Your task to perform on an android device: check battery use Image 0: 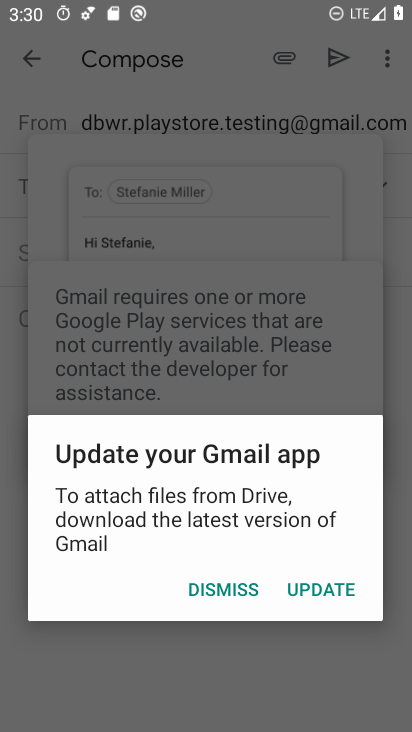
Step 0: press home button
Your task to perform on an android device: check battery use Image 1: 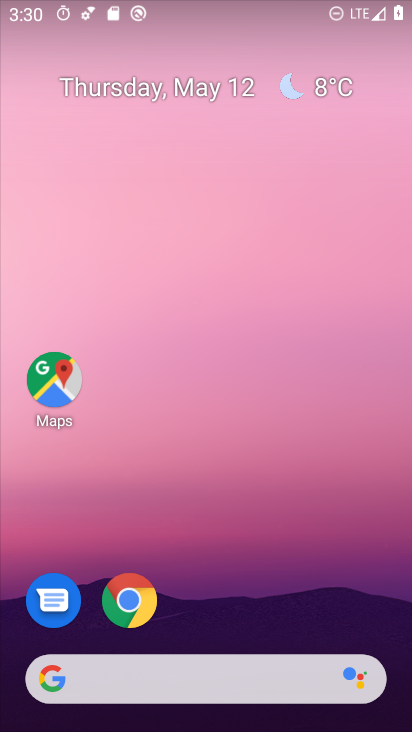
Step 1: drag from (211, 725) to (213, 234)
Your task to perform on an android device: check battery use Image 2: 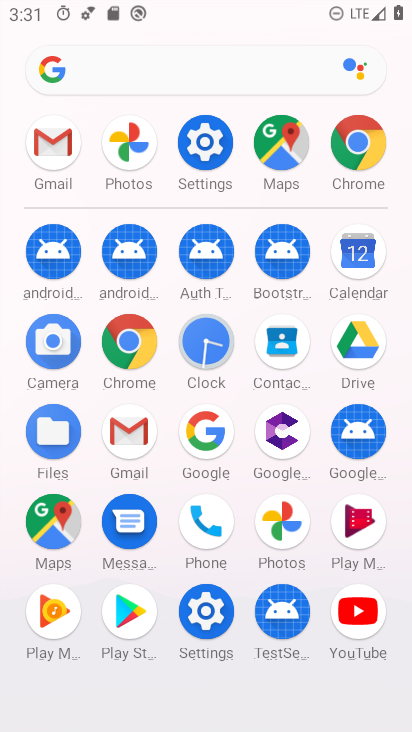
Step 2: click (205, 137)
Your task to perform on an android device: check battery use Image 3: 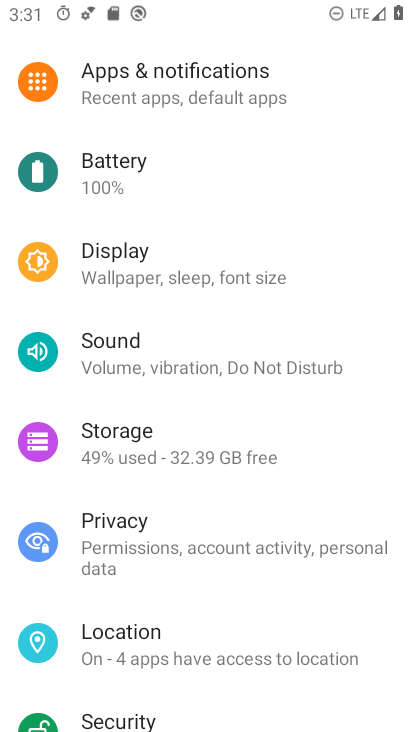
Step 3: click (100, 172)
Your task to perform on an android device: check battery use Image 4: 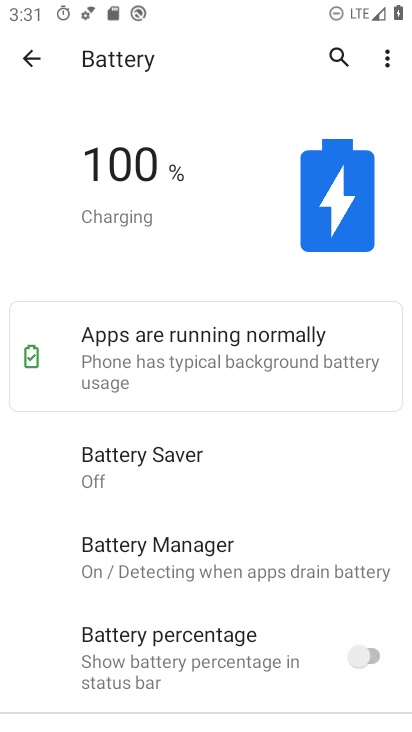
Step 4: click (384, 59)
Your task to perform on an android device: check battery use Image 5: 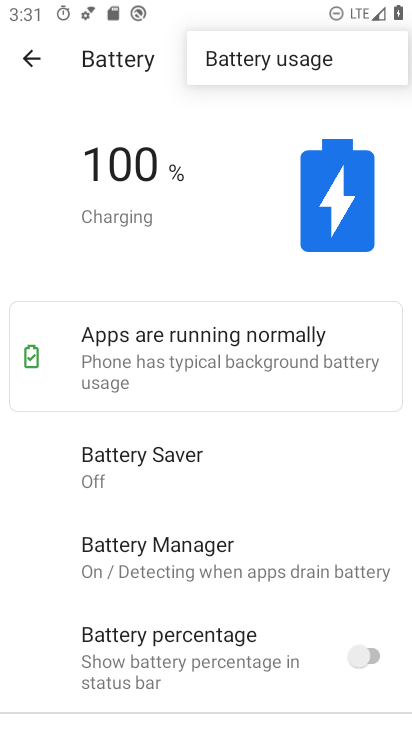
Step 5: click (257, 56)
Your task to perform on an android device: check battery use Image 6: 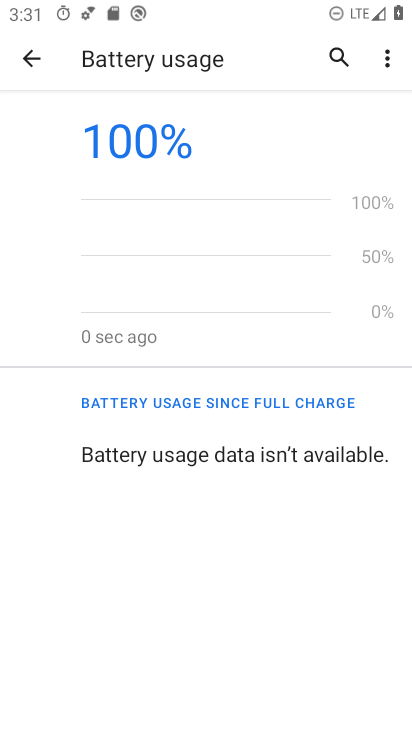
Step 6: task complete